Your task to perform on an android device: turn on the 24-hour format for clock Image 0: 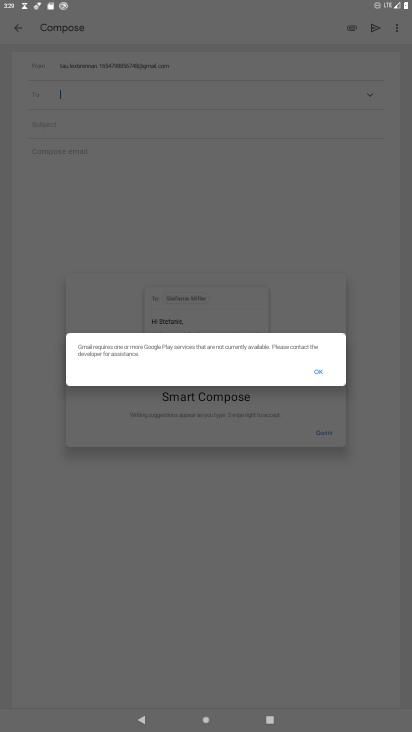
Step 0: press home button
Your task to perform on an android device: turn on the 24-hour format for clock Image 1: 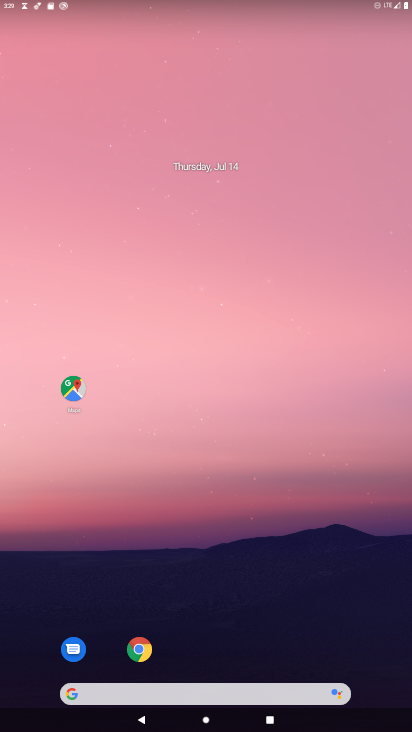
Step 1: drag from (178, 653) to (291, 79)
Your task to perform on an android device: turn on the 24-hour format for clock Image 2: 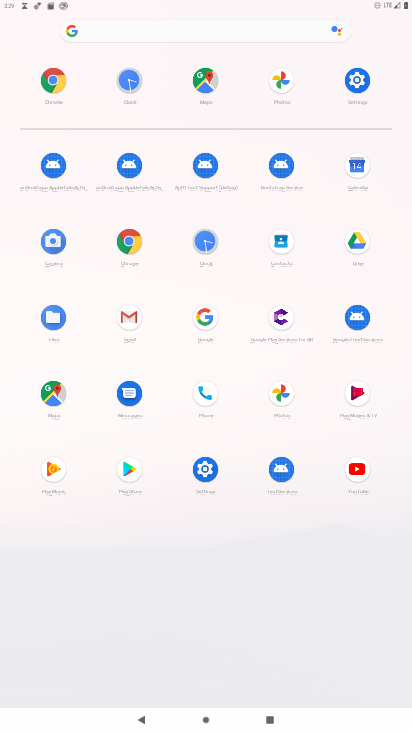
Step 2: click (212, 241)
Your task to perform on an android device: turn on the 24-hour format for clock Image 3: 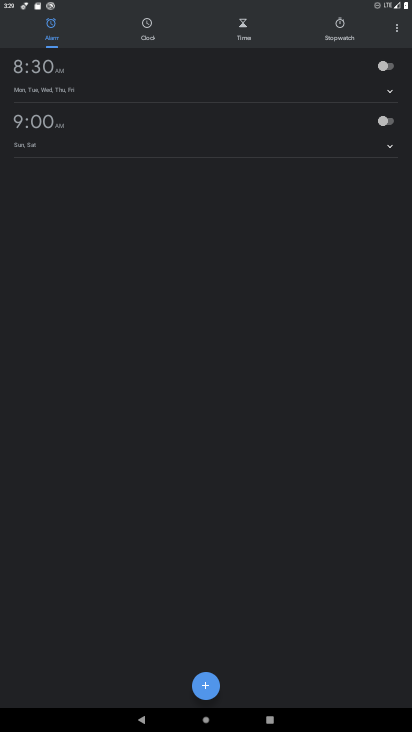
Step 3: click (401, 29)
Your task to perform on an android device: turn on the 24-hour format for clock Image 4: 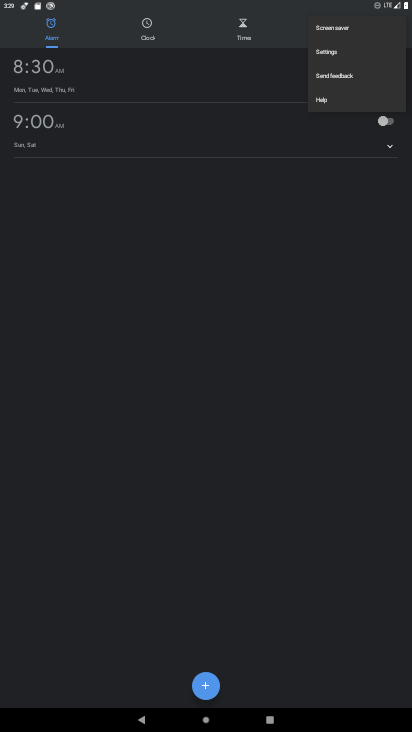
Step 4: click (352, 55)
Your task to perform on an android device: turn on the 24-hour format for clock Image 5: 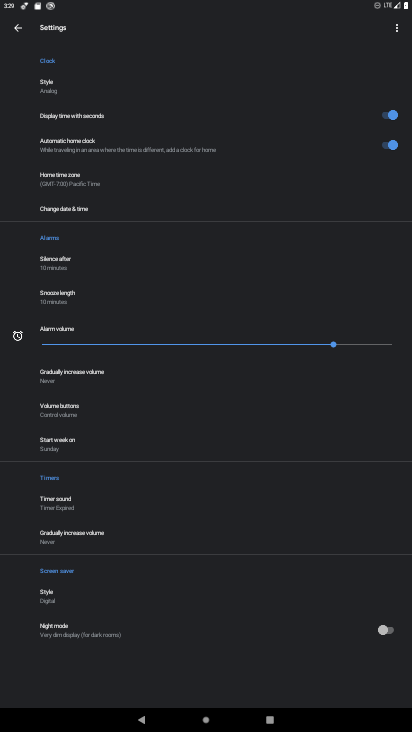
Step 5: click (78, 209)
Your task to perform on an android device: turn on the 24-hour format for clock Image 6: 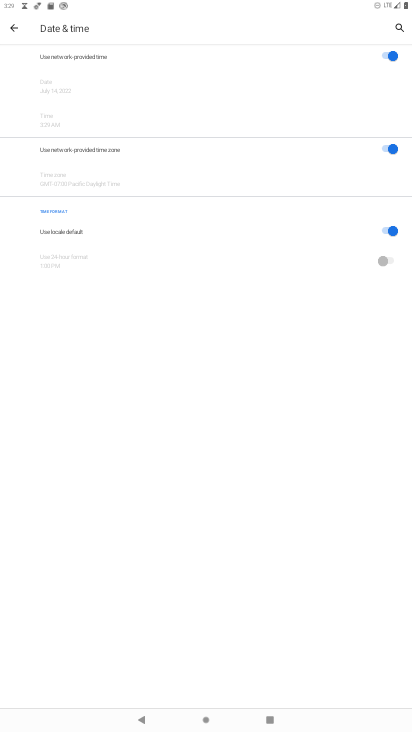
Step 6: click (384, 229)
Your task to perform on an android device: turn on the 24-hour format for clock Image 7: 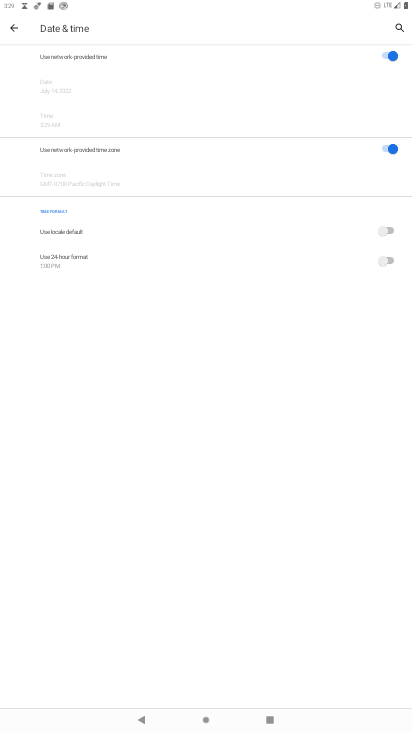
Step 7: click (390, 260)
Your task to perform on an android device: turn on the 24-hour format for clock Image 8: 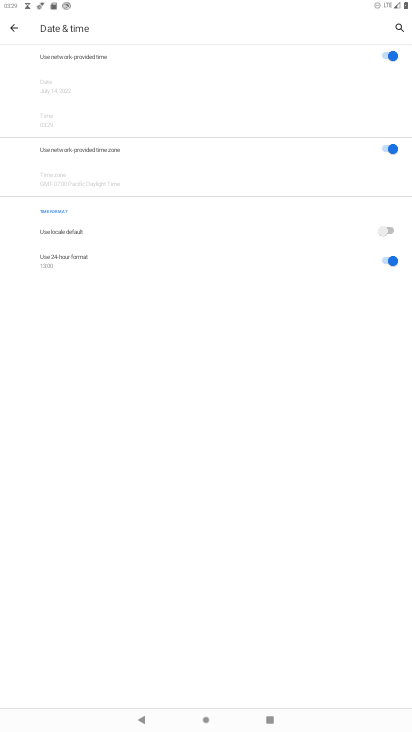
Step 8: task complete